Your task to perform on an android device: change notifications settings Image 0: 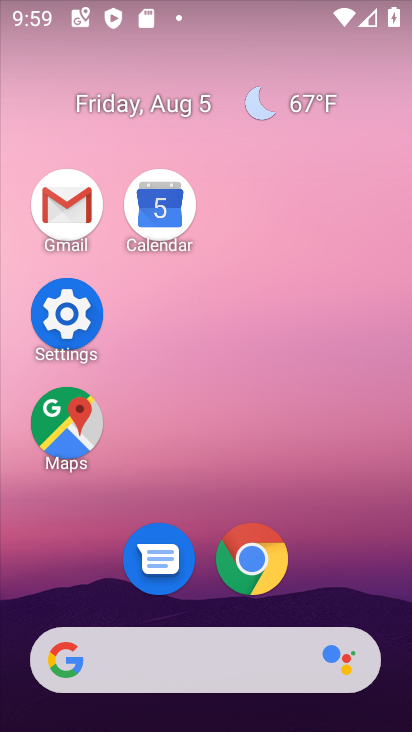
Step 0: click (42, 301)
Your task to perform on an android device: change notifications settings Image 1: 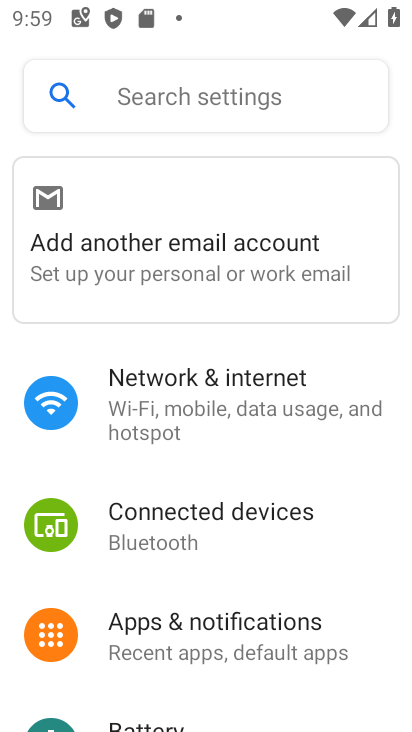
Step 1: click (217, 637)
Your task to perform on an android device: change notifications settings Image 2: 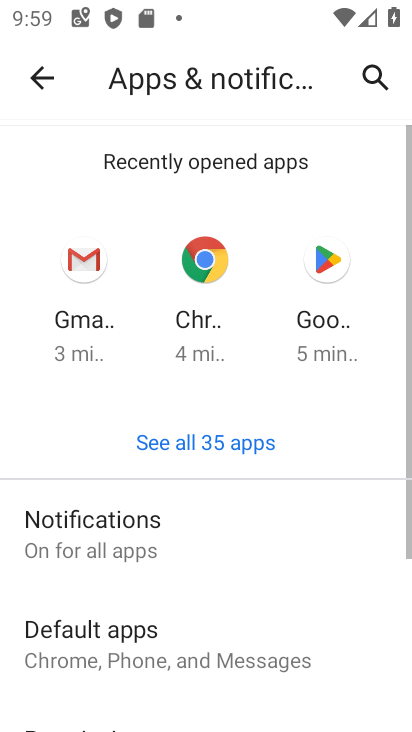
Step 2: task complete